Your task to perform on an android device: Go to location settings Image 0: 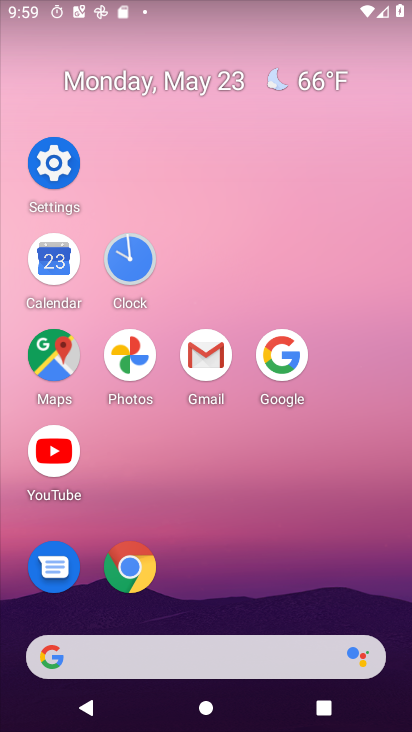
Step 0: click (56, 162)
Your task to perform on an android device: Go to location settings Image 1: 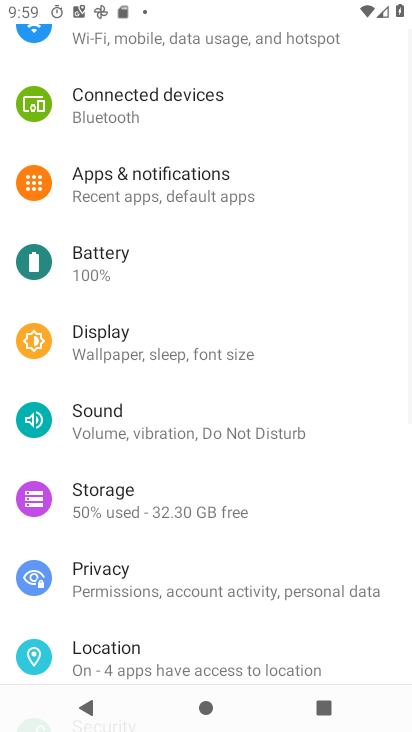
Step 1: drag from (165, 593) to (178, 183)
Your task to perform on an android device: Go to location settings Image 2: 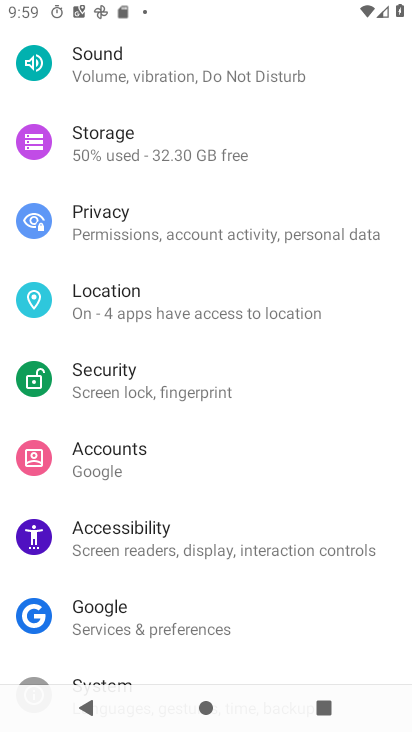
Step 2: click (166, 317)
Your task to perform on an android device: Go to location settings Image 3: 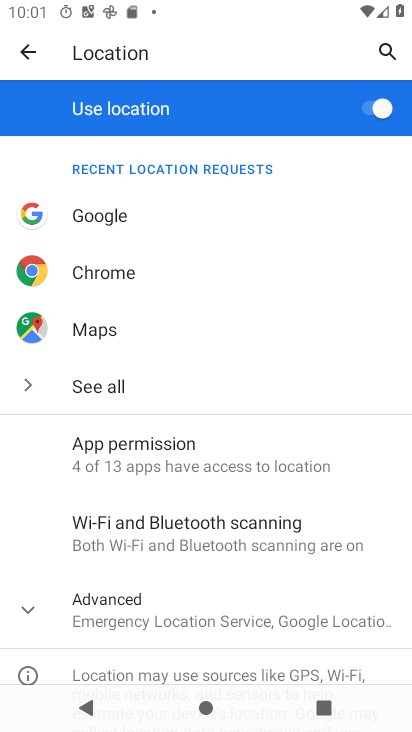
Step 3: task complete